Your task to perform on an android device: turn on bluetooth scan Image 0: 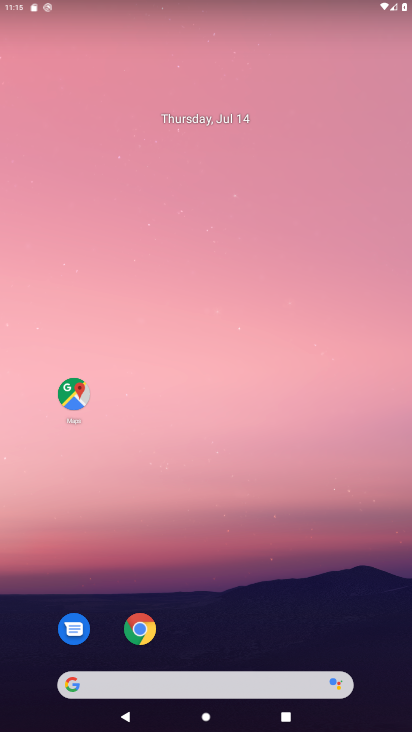
Step 0: drag from (243, 693) to (108, 167)
Your task to perform on an android device: turn on bluetooth scan Image 1: 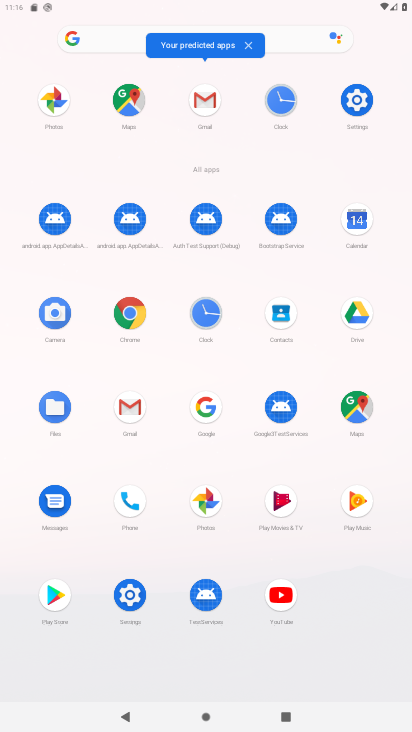
Step 1: drag from (351, 102) to (292, 666)
Your task to perform on an android device: turn on bluetooth scan Image 2: 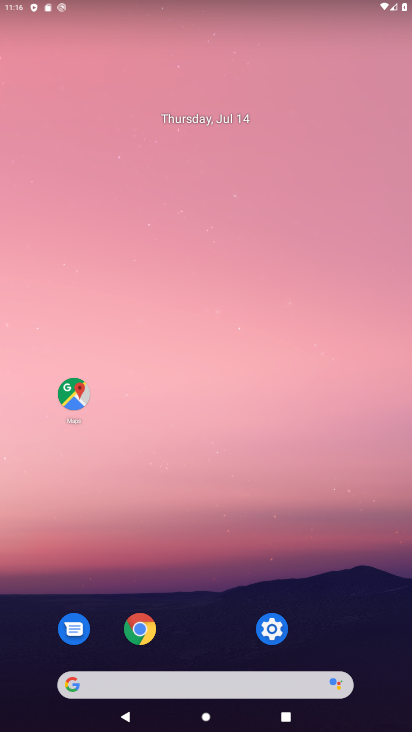
Step 2: click (272, 620)
Your task to perform on an android device: turn on bluetooth scan Image 3: 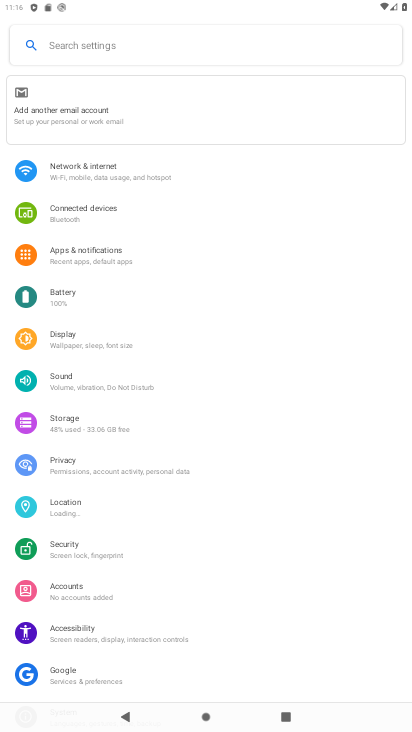
Step 3: click (113, 51)
Your task to perform on an android device: turn on bluetooth scan Image 4: 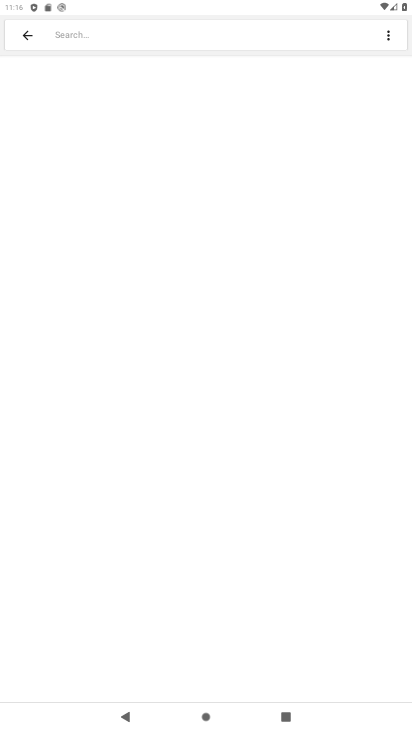
Step 4: click (144, 44)
Your task to perform on an android device: turn on bluetooth scan Image 5: 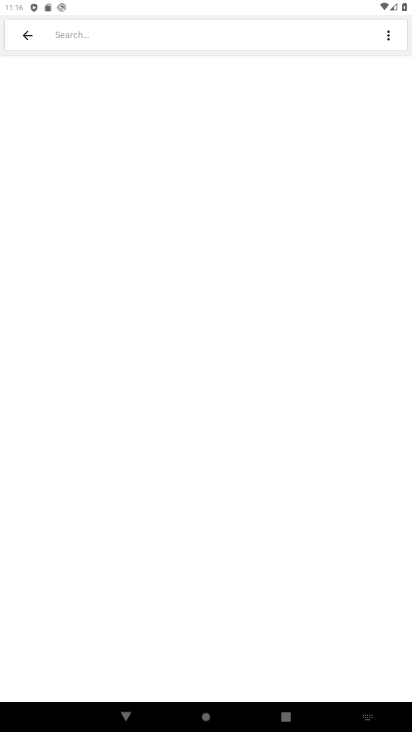
Step 5: drag from (389, 708) to (360, 626)
Your task to perform on an android device: turn on bluetooth scan Image 6: 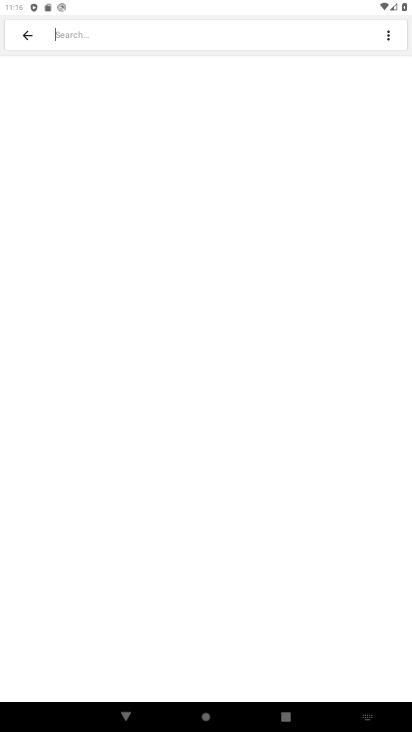
Step 6: drag from (377, 721) to (365, 669)
Your task to perform on an android device: turn on bluetooth scan Image 7: 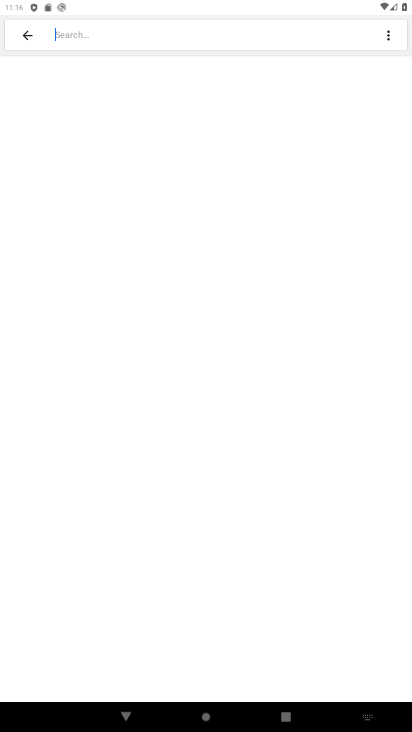
Step 7: click (370, 722)
Your task to perform on an android device: turn on bluetooth scan Image 8: 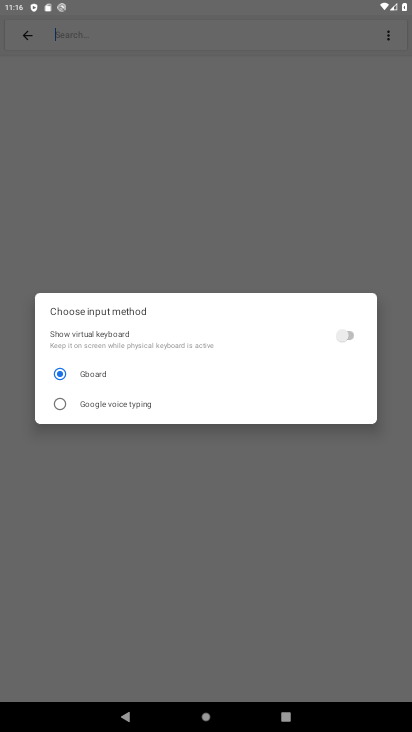
Step 8: click (345, 331)
Your task to perform on an android device: turn on bluetooth scan Image 9: 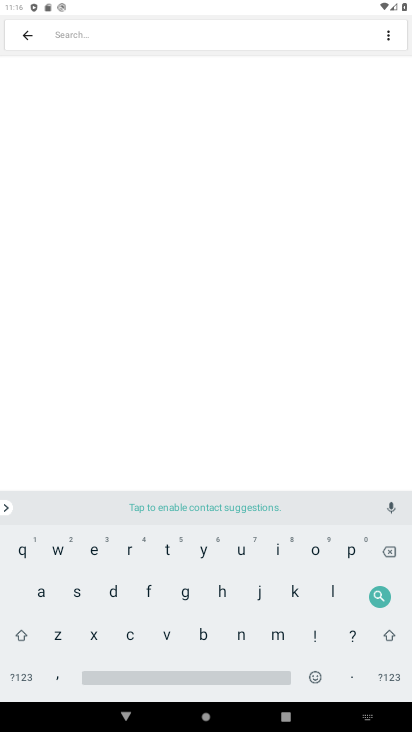
Step 9: click (68, 33)
Your task to perform on an android device: turn on bluetooth scan Image 10: 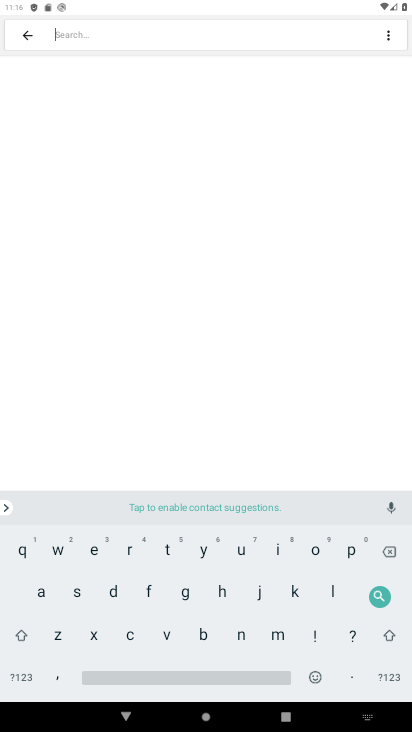
Step 10: click (328, 589)
Your task to perform on an android device: turn on bluetooth scan Image 11: 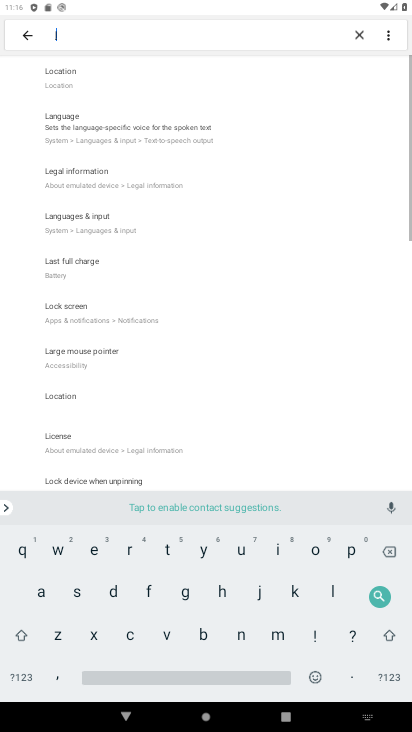
Step 11: click (317, 553)
Your task to perform on an android device: turn on bluetooth scan Image 12: 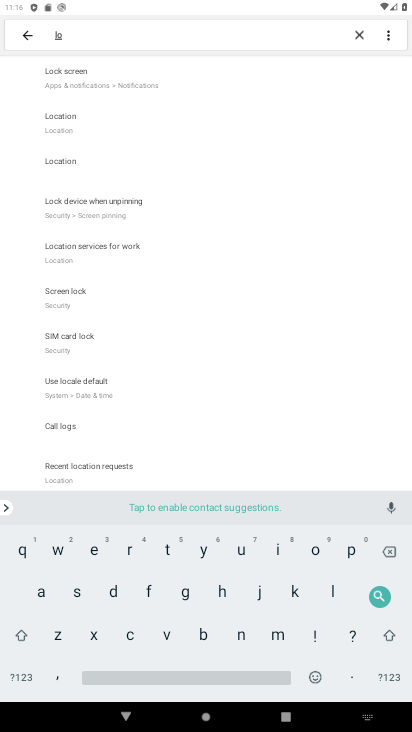
Step 12: click (82, 124)
Your task to perform on an android device: turn on bluetooth scan Image 13: 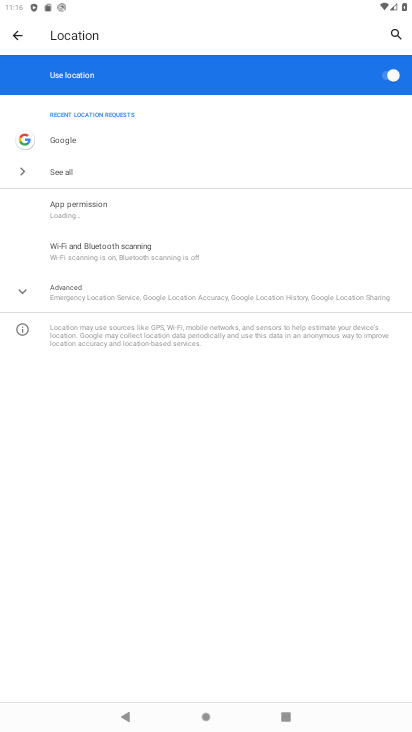
Step 13: click (154, 256)
Your task to perform on an android device: turn on bluetooth scan Image 14: 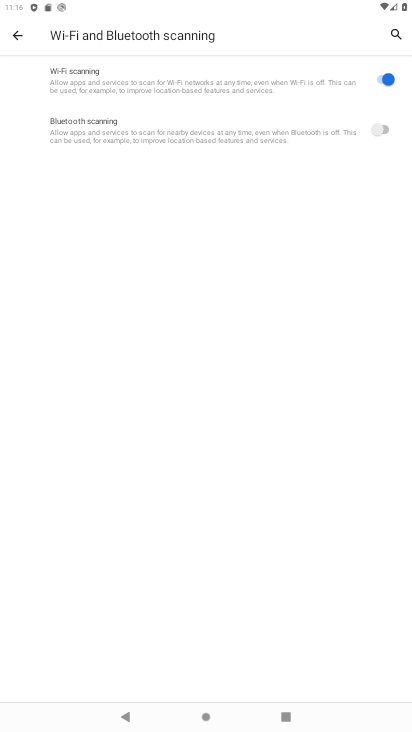
Step 14: click (382, 130)
Your task to perform on an android device: turn on bluetooth scan Image 15: 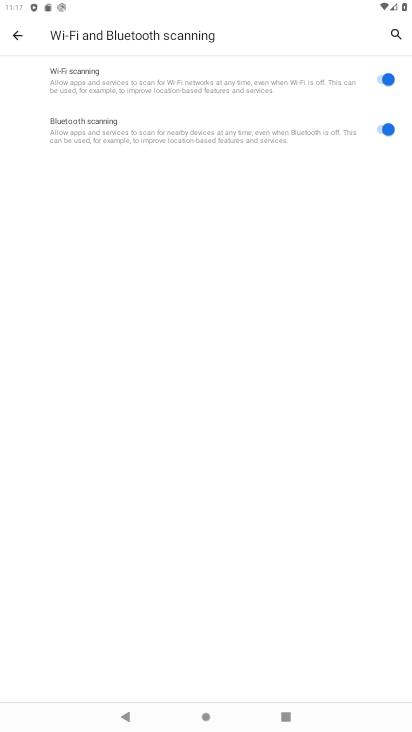
Step 15: task complete